Your task to perform on an android device: manage bookmarks in the chrome app Image 0: 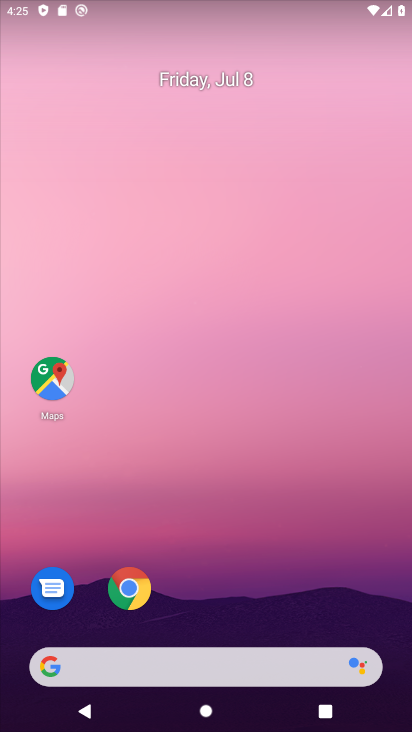
Step 0: click (139, 597)
Your task to perform on an android device: manage bookmarks in the chrome app Image 1: 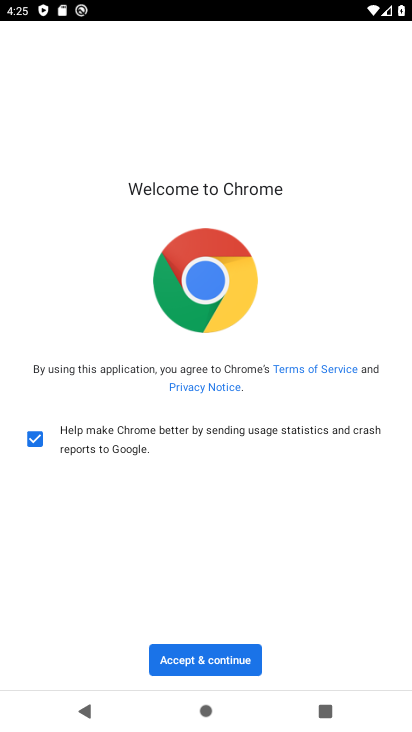
Step 1: click (209, 662)
Your task to perform on an android device: manage bookmarks in the chrome app Image 2: 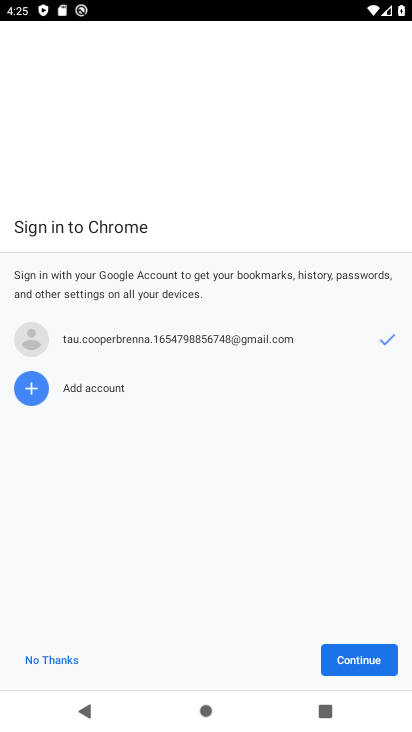
Step 2: click (342, 662)
Your task to perform on an android device: manage bookmarks in the chrome app Image 3: 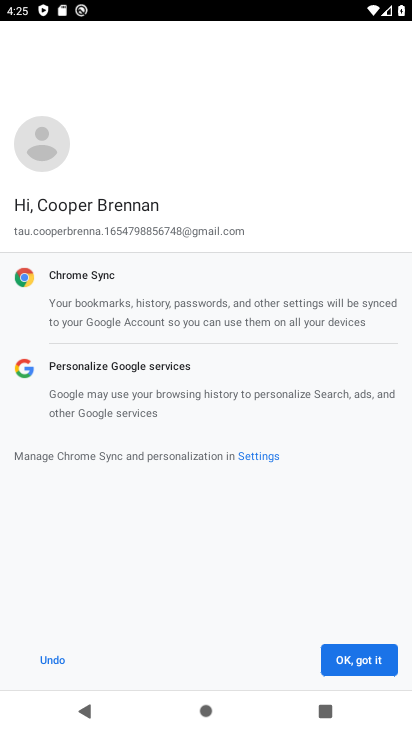
Step 3: click (352, 668)
Your task to perform on an android device: manage bookmarks in the chrome app Image 4: 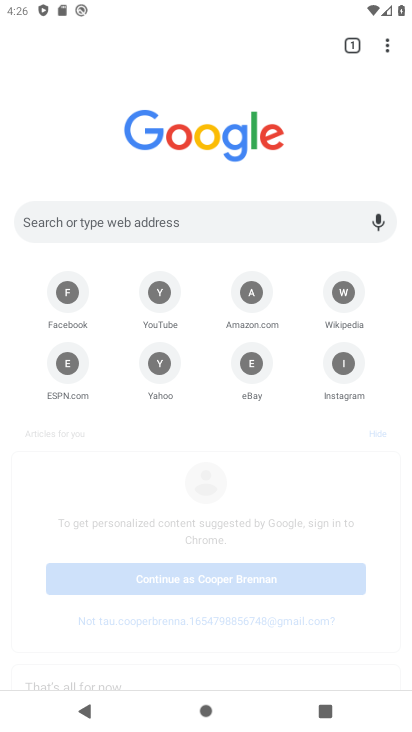
Step 4: click (381, 47)
Your task to perform on an android device: manage bookmarks in the chrome app Image 5: 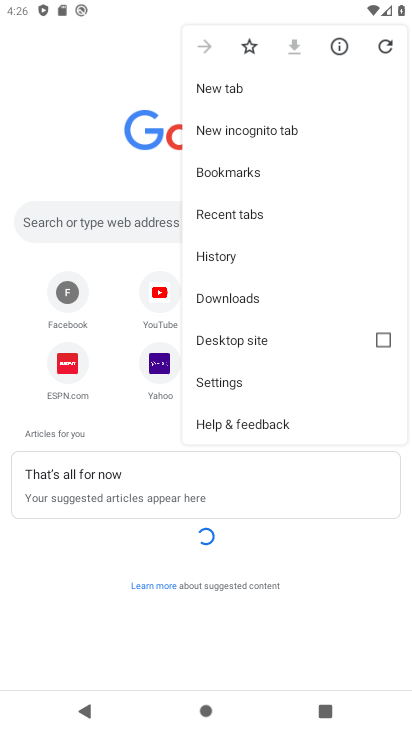
Step 5: click (234, 177)
Your task to perform on an android device: manage bookmarks in the chrome app Image 6: 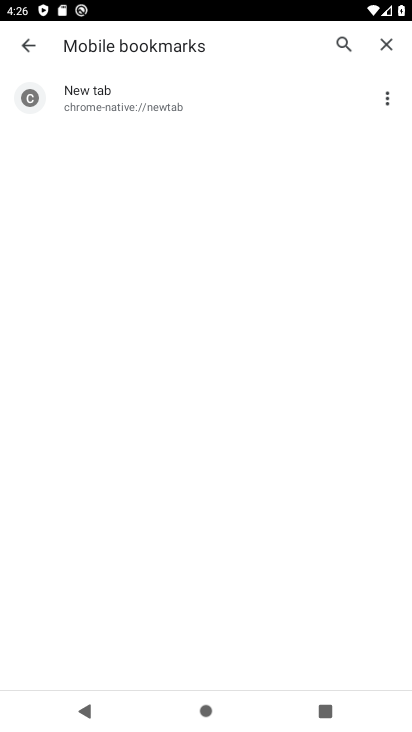
Step 6: click (381, 95)
Your task to perform on an android device: manage bookmarks in the chrome app Image 7: 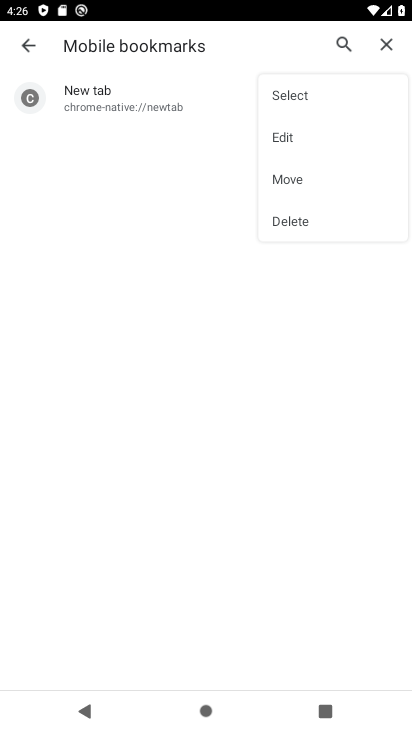
Step 7: click (307, 137)
Your task to perform on an android device: manage bookmarks in the chrome app Image 8: 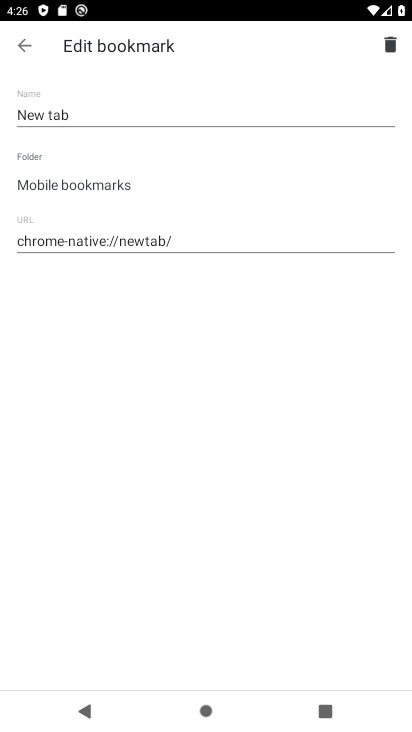
Step 8: click (106, 116)
Your task to perform on an android device: manage bookmarks in the chrome app Image 9: 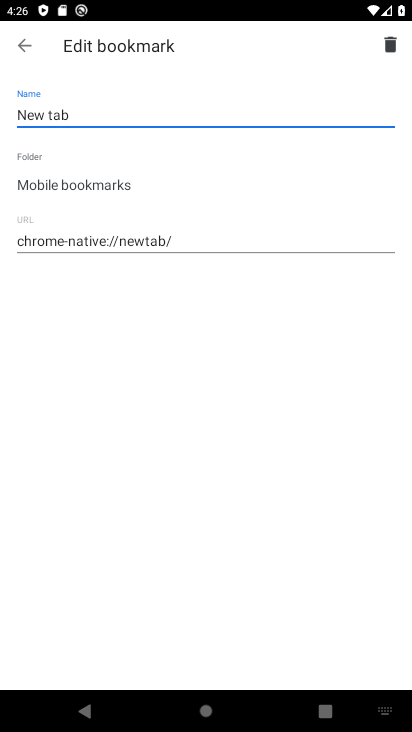
Step 9: type "zssc"
Your task to perform on an android device: manage bookmarks in the chrome app Image 10: 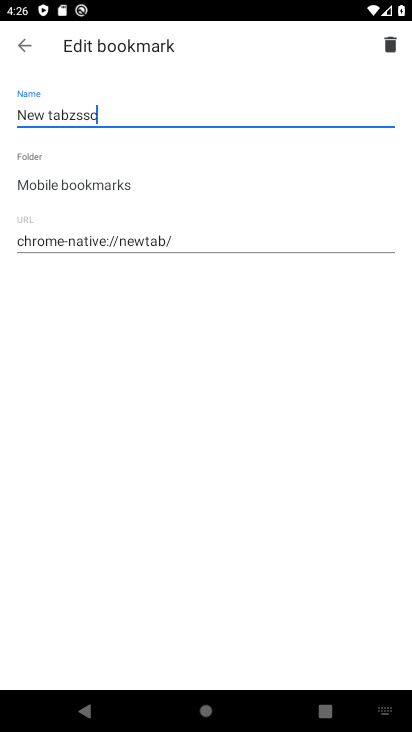
Step 10: type ""
Your task to perform on an android device: manage bookmarks in the chrome app Image 11: 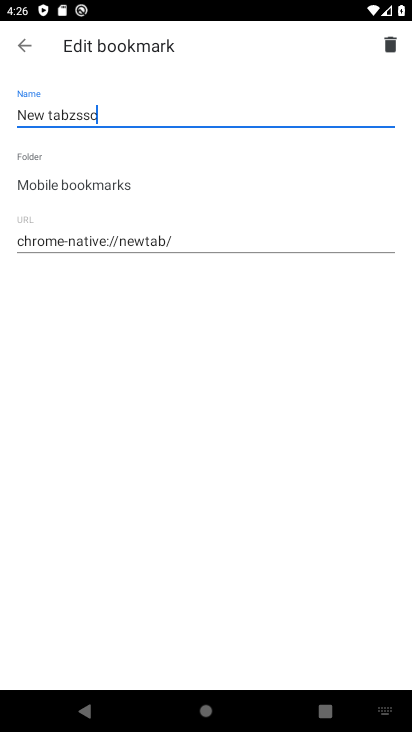
Step 11: press enter
Your task to perform on an android device: manage bookmarks in the chrome app Image 12: 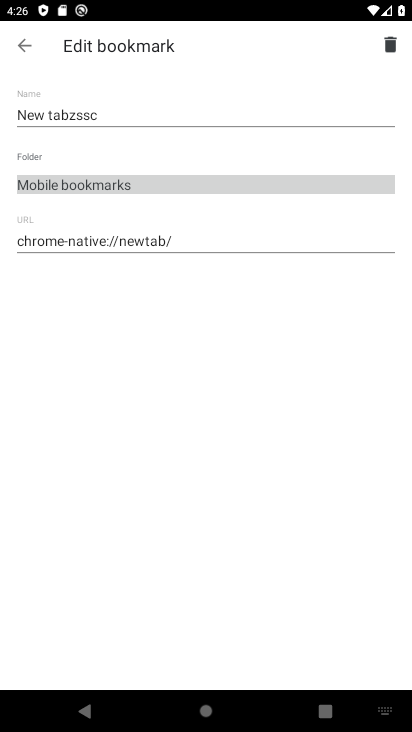
Step 12: click (20, 46)
Your task to perform on an android device: manage bookmarks in the chrome app Image 13: 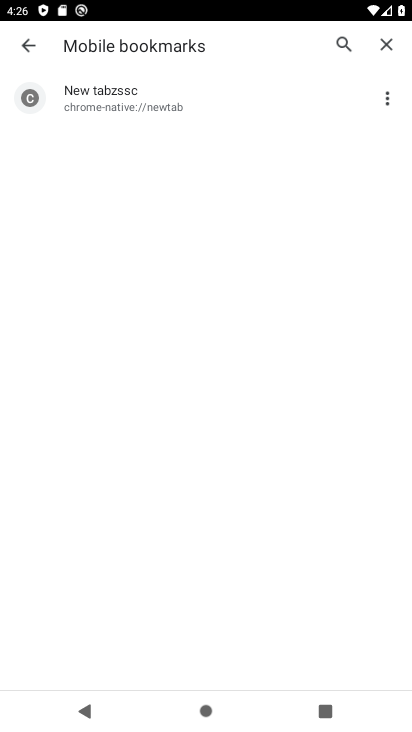
Step 13: task complete